Your task to perform on an android device: toggle data saver in the chrome app Image 0: 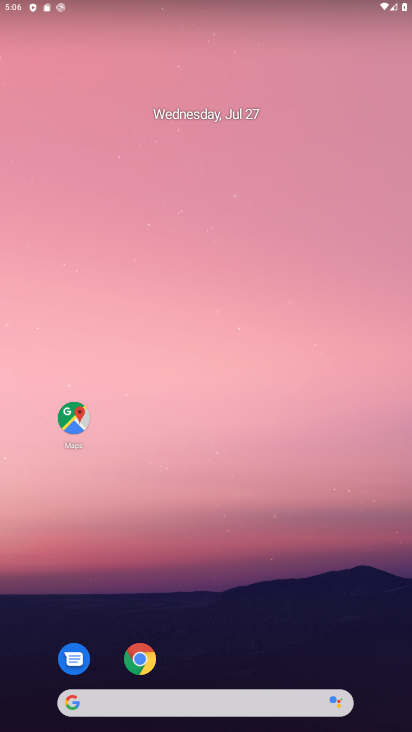
Step 0: drag from (254, 595) to (310, 351)
Your task to perform on an android device: toggle data saver in the chrome app Image 1: 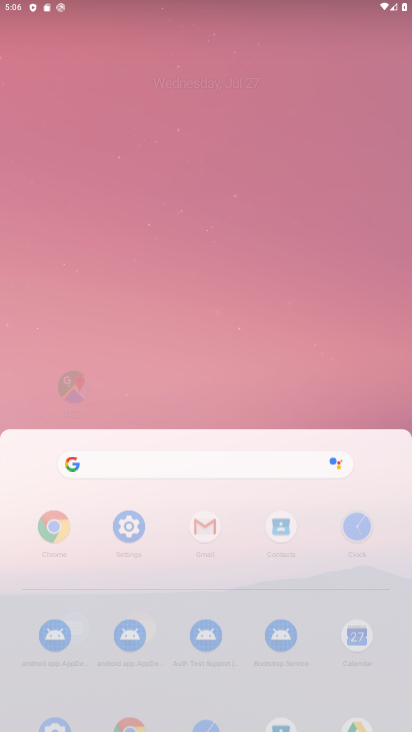
Step 1: drag from (342, 110) to (348, 32)
Your task to perform on an android device: toggle data saver in the chrome app Image 2: 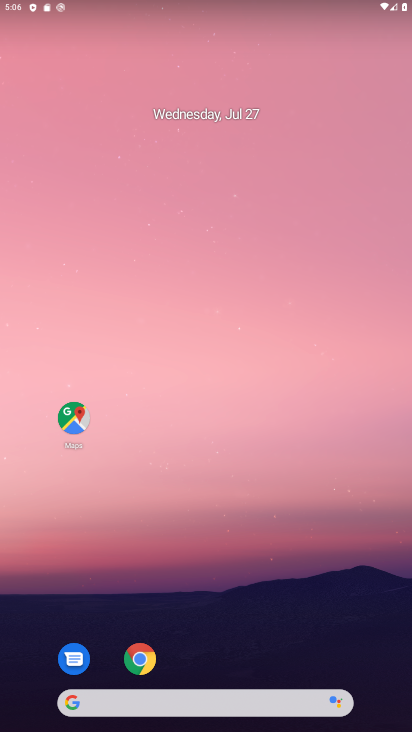
Step 2: click (145, 657)
Your task to perform on an android device: toggle data saver in the chrome app Image 3: 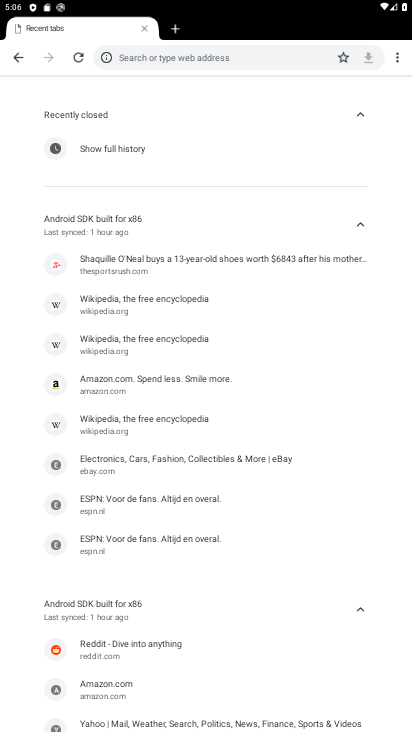
Step 3: drag from (398, 58) to (270, 262)
Your task to perform on an android device: toggle data saver in the chrome app Image 4: 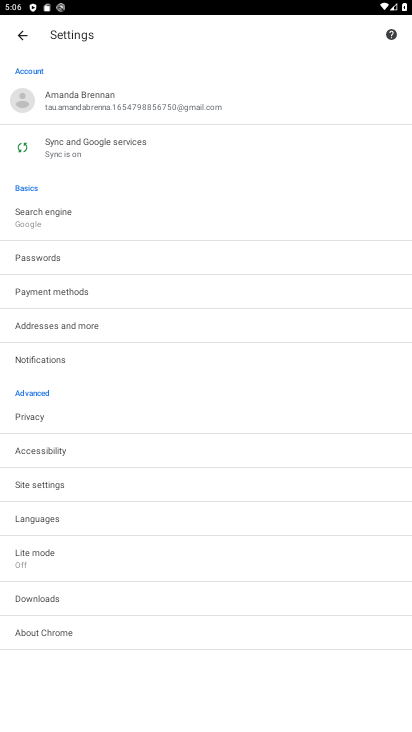
Step 4: click (56, 554)
Your task to perform on an android device: toggle data saver in the chrome app Image 5: 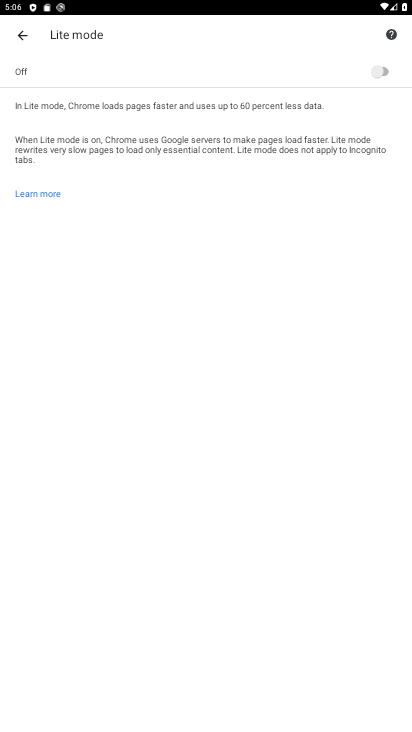
Step 5: click (234, 78)
Your task to perform on an android device: toggle data saver in the chrome app Image 6: 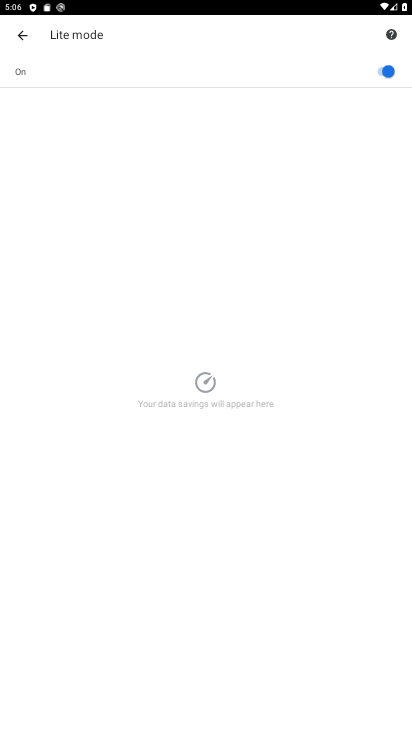
Step 6: task complete